Your task to perform on an android device: Go to settings Image 0: 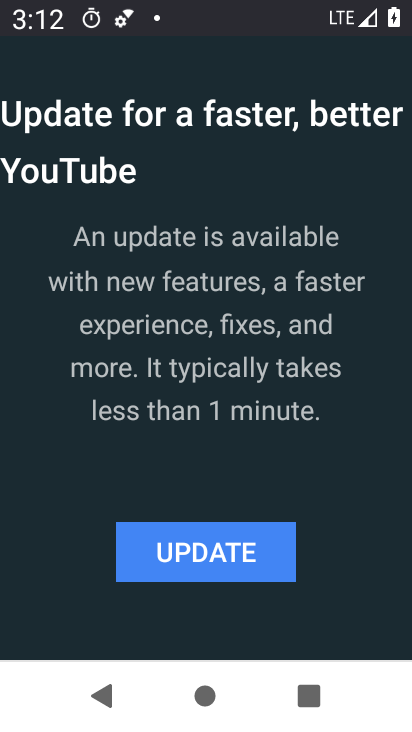
Step 0: press home button
Your task to perform on an android device: Go to settings Image 1: 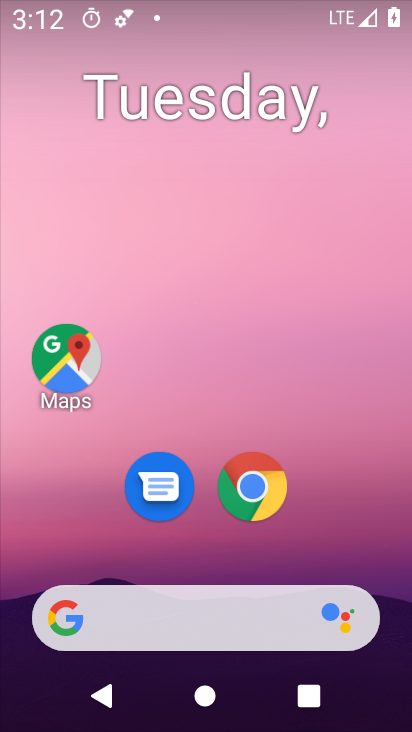
Step 1: drag from (354, 540) to (347, 54)
Your task to perform on an android device: Go to settings Image 2: 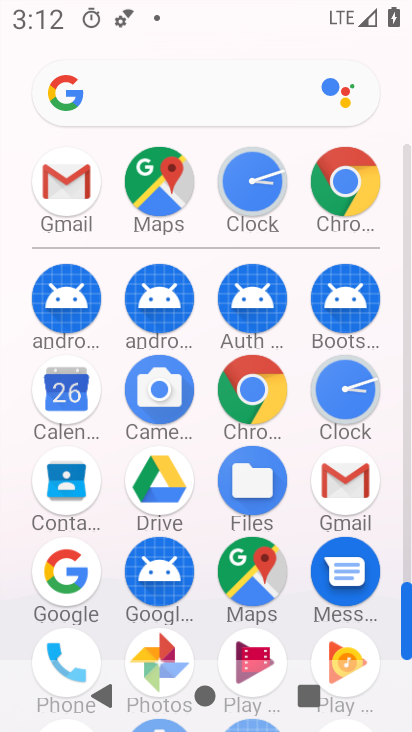
Step 2: drag from (387, 475) to (372, 224)
Your task to perform on an android device: Go to settings Image 3: 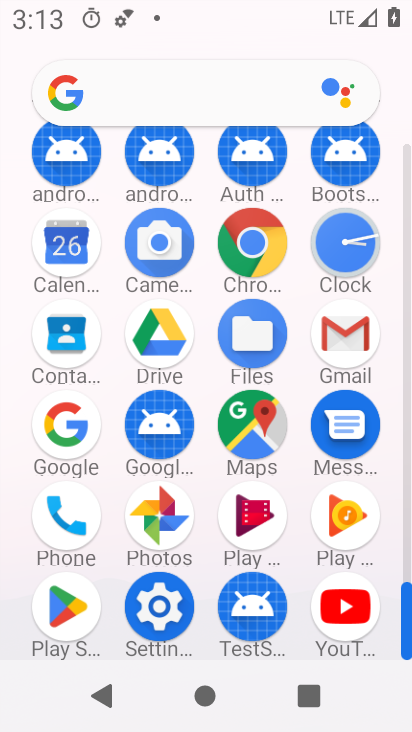
Step 3: click (160, 603)
Your task to perform on an android device: Go to settings Image 4: 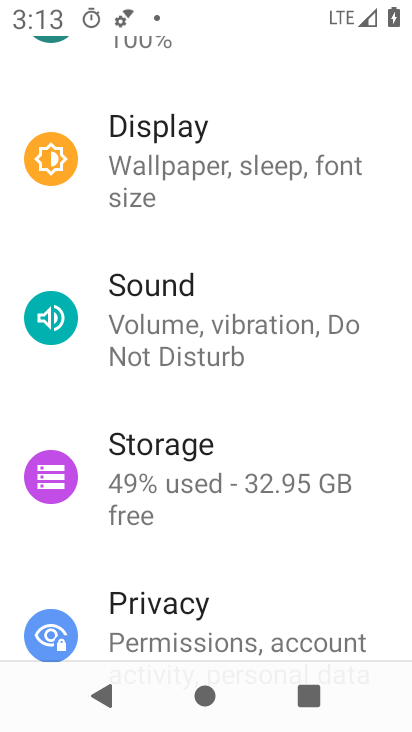
Step 4: task complete